Your task to perform on an android device: allow notifications from all sites in the chrome app Image 0: 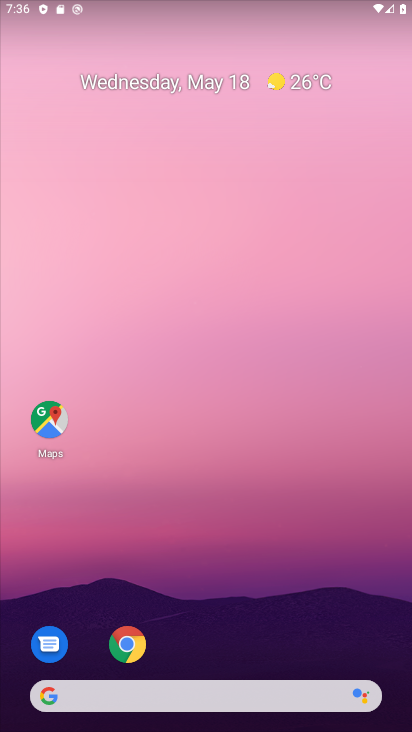
Step 0: click (279, 513)
Your task to perform on an android device: allow notifications from all sites in the chrome app Image 1: 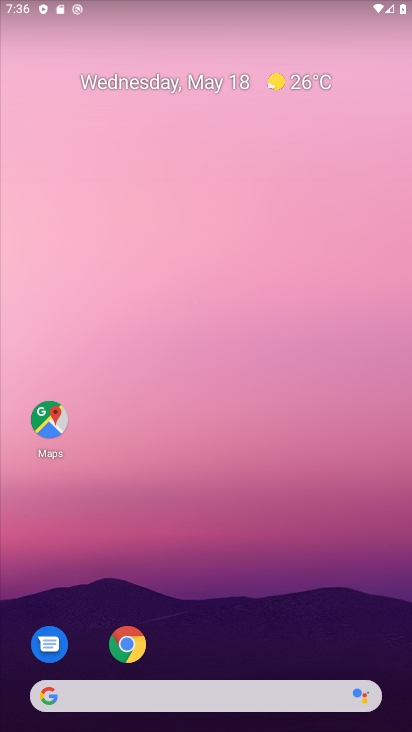
Step 1: click (328, 326)
Your task to perform on an android device: allow notifications from all sites in the chrome app Image 2: 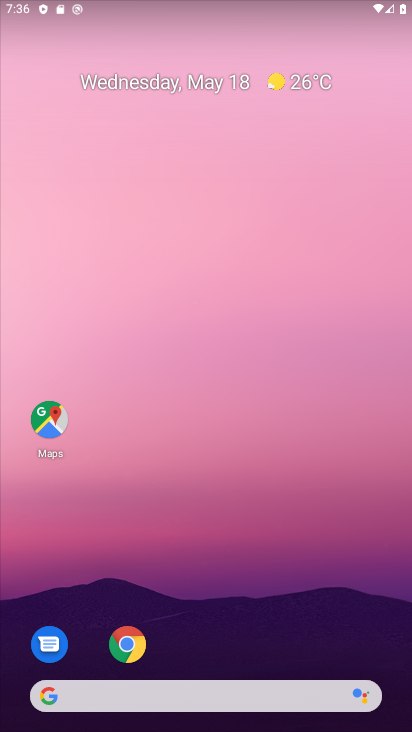
Step 2: click (117, 635)
Your task to perform on an android device: allow notifications from all sites in the chrome app Image 3: 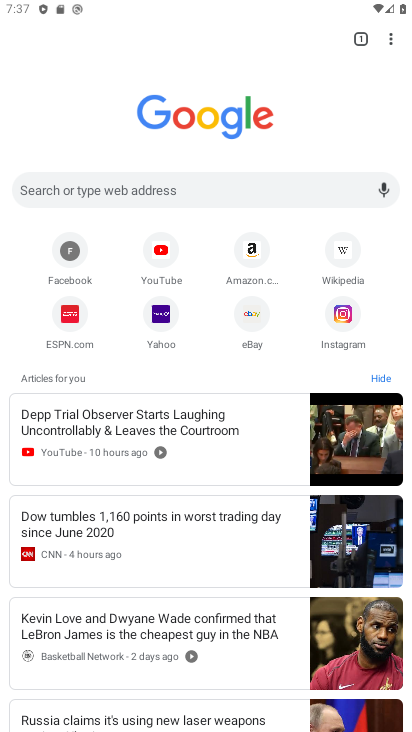
Step 3: click (393, 40)
Your task to perform on an android device: allow notifications from all sites in the chrome app Image 4: 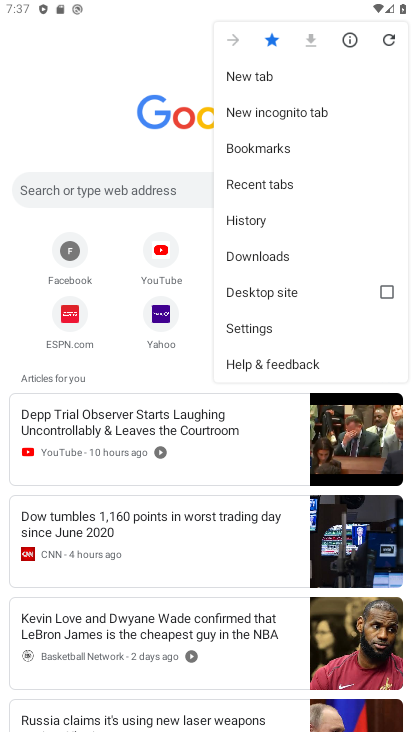
Step 4: click (261, 325)
Your task to perform on an android device: allow notifications from all sites in the chrome app Image 5: 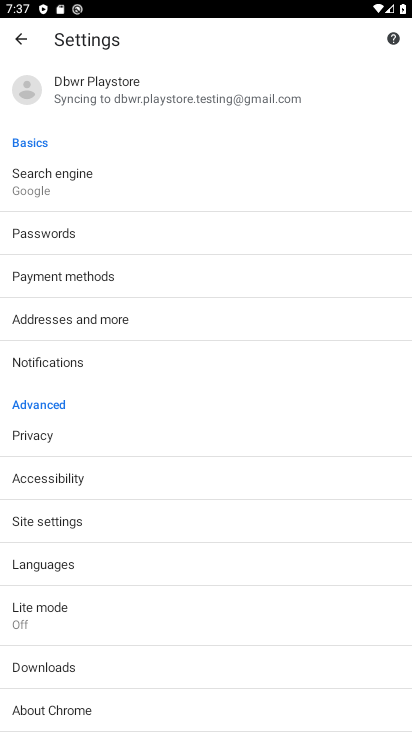
Step 5: click (57, 521)
Your task to perform on an android device: allow notifications from all sites in the chrome app Image 6: 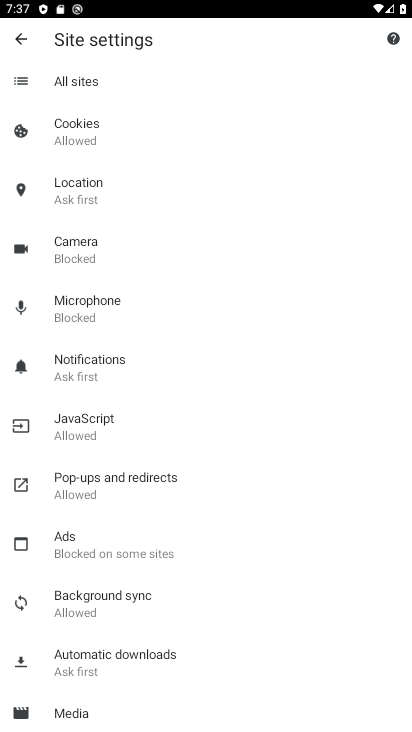
Step 6: click (80, 359)
Your task to perform on an android device: allow notifications from all sites in the chrome app Image 7: 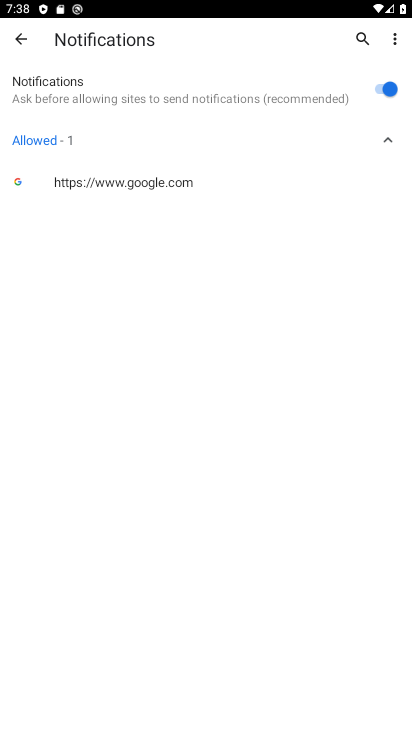
Step 7: task complete